Your task to perform on an android device: Go to Android settings Image 0: 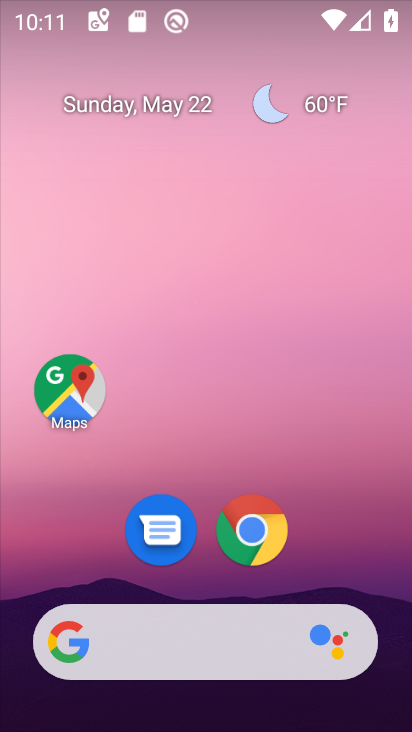
Step 0: drag from (403, 549) to (403, 311)
Your task to perform on an android device: Go to Android settings Image 1: 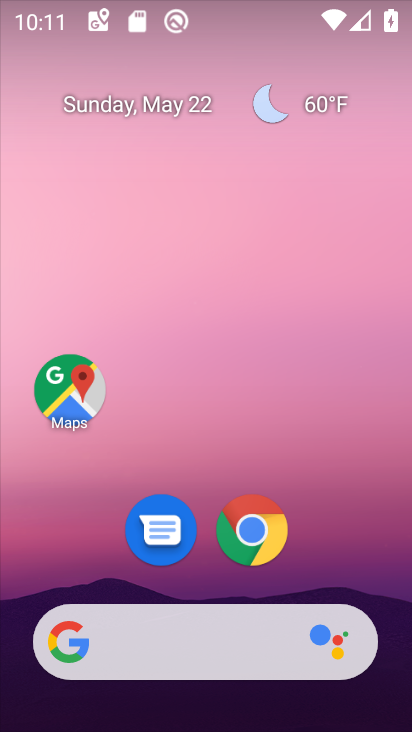
Step 1: drag from (407, 631) to (411, 93)
Your task to perform on an android device: Go to Android settings Image 2: 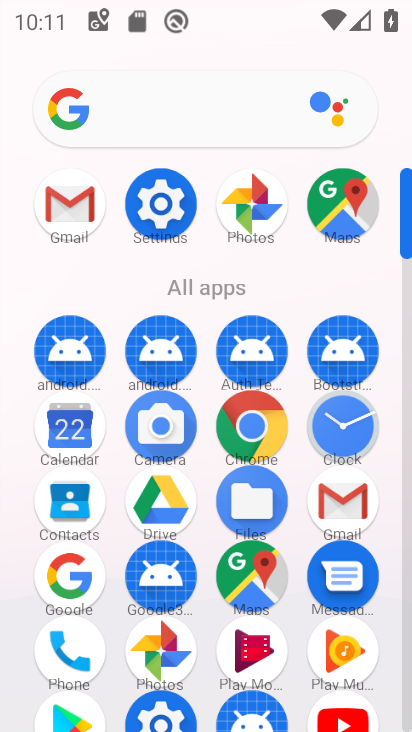
Step 2: click (150, 211)
Your task to perform on an android device: Go to Android settings Image 3: 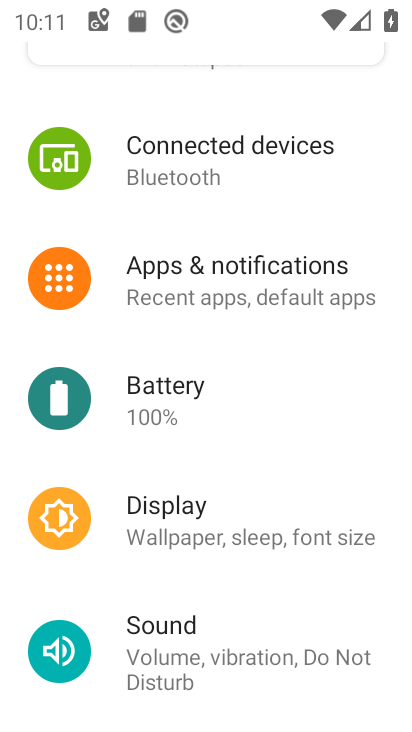
Step 3: task complete